Your task to perform on an android device: Open the calendar app, open the side menu, and click the "Day" option Image 0: 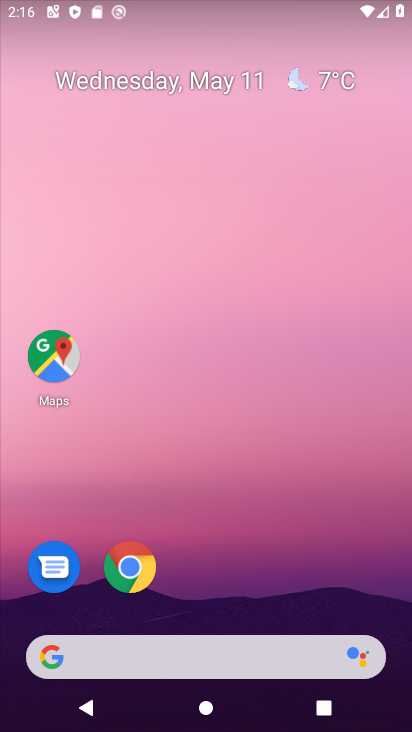
Step 0: drag from (224, 360) to (119, 6)
Your task to perform on an android device: Open the calendar app, open the side menu, and click the "Day" option Image 1: 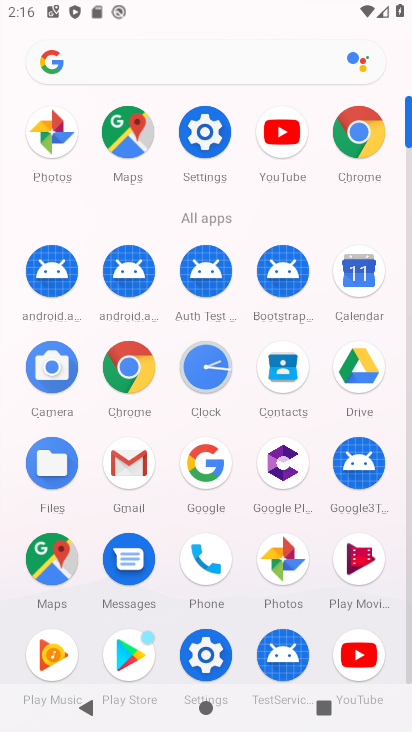
Step 1: click (344, 283)
Your task to perform on an android device: Open the calendar app, open the side menu, and click the "Day" option Image 2: 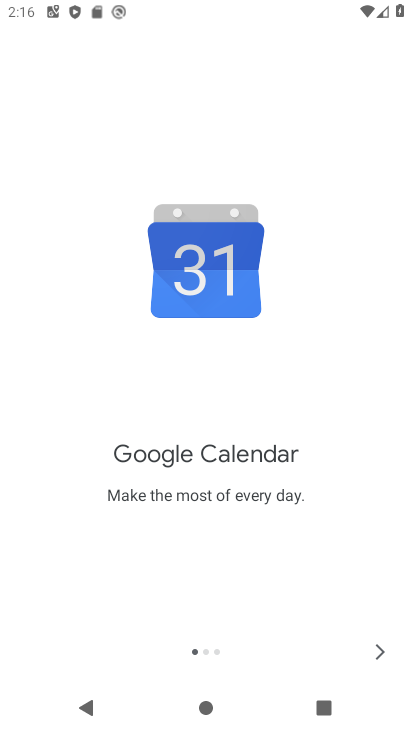
Step 2: click (380, 641)
Your task to perform on an android device: Open the calendar app, open the side menu, and click the "Day" option Image 3: 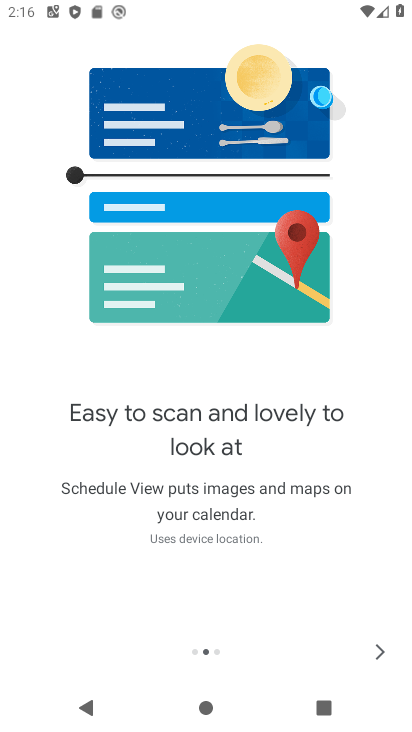
Step 3: click (384, 655)
Your task to perform on an android device: Open the calendar app, open the side menu, and click the "Day" option Image 4: 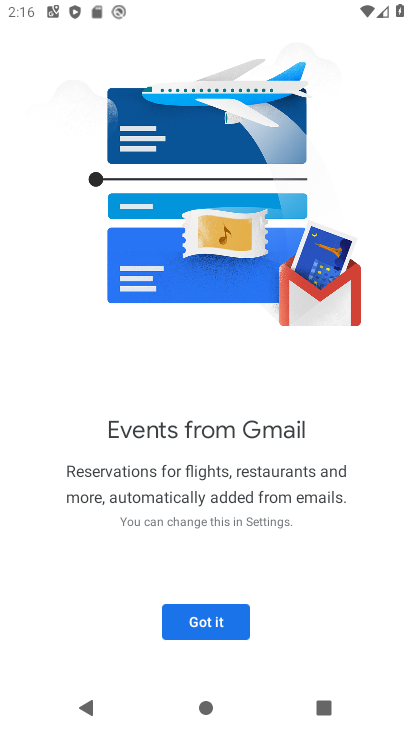
Step 4: click (213, 629)
Your task to perform on an android device: Open the calendar app, open the side menu, and click the "Day" option Image 5: 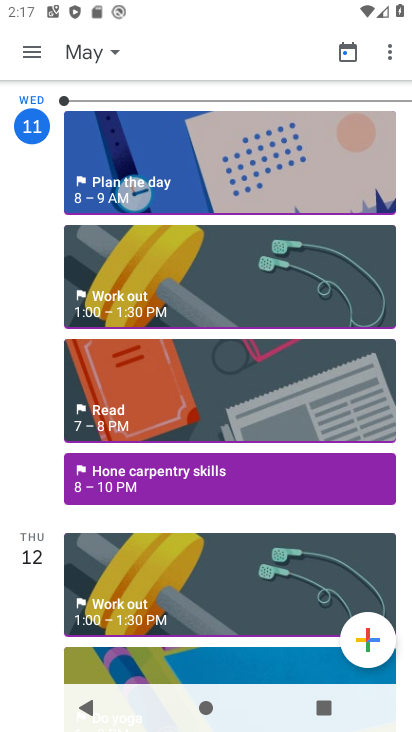
Step 5: click (32, 55)
Your task to perform on an android device: Open the calendar app, open the side menu, and click the "Day" option Image 6: 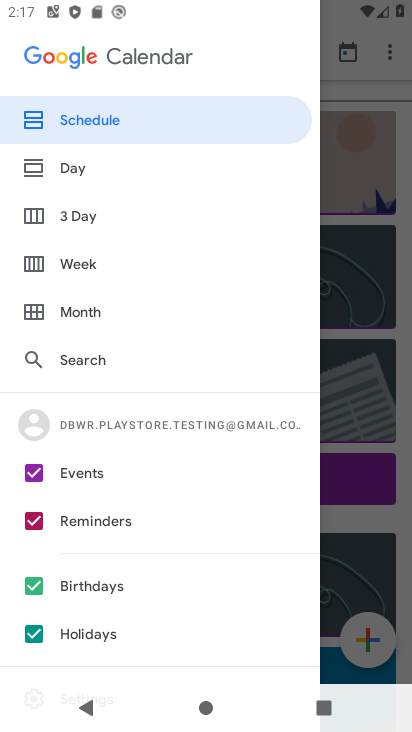
Step 6: click (122, 159)
Your task to perform on an android device: Open the calendar app, open the side menu, and click the "Day" option Image 7: 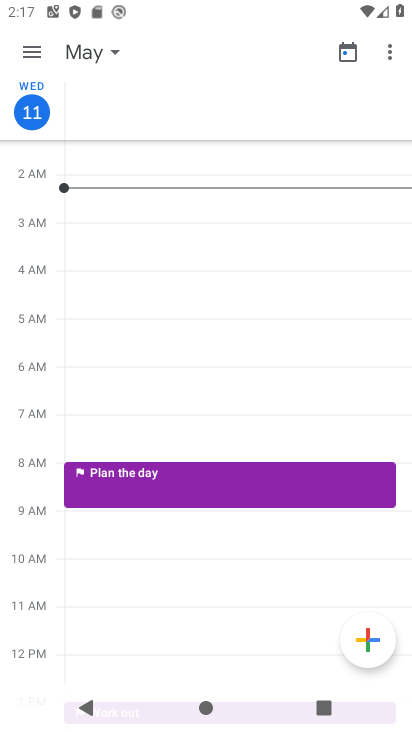
Step 7: task complete